Your task to perform on an android device: set the stopwatch Image 0: 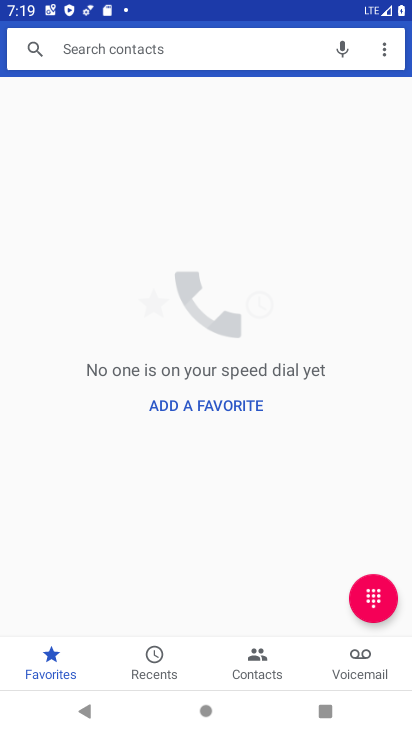
Step 0: press home button
Your task to perform on an android device: set the stopwatch Image 1: 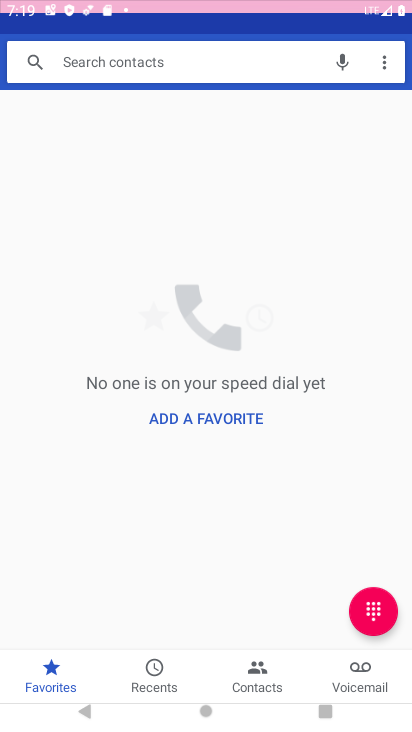
Step 1: press home button
Your task to perform on an android device: set the stopwatch Image 2: 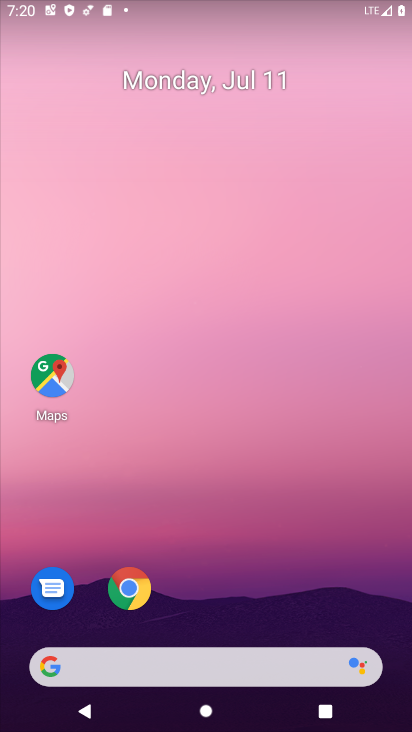
Step 2: drag from (383, 571) to (239, 9)
Your task to perform on an android device: set the stopwatch Image 3: 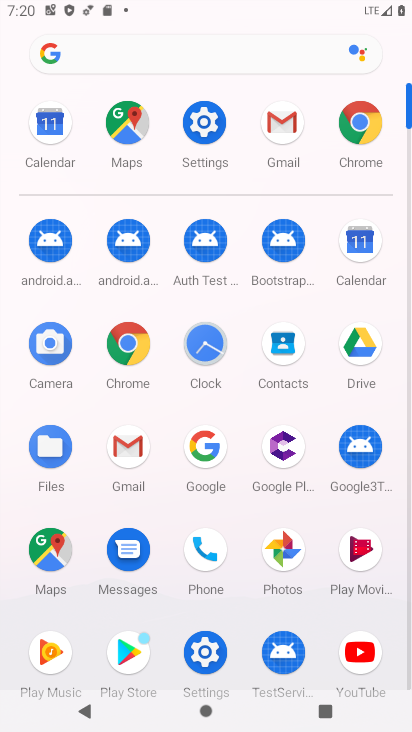
Step 3: click (203, 344)
Your task to perform on an android device: set the stopwatch Image 4: 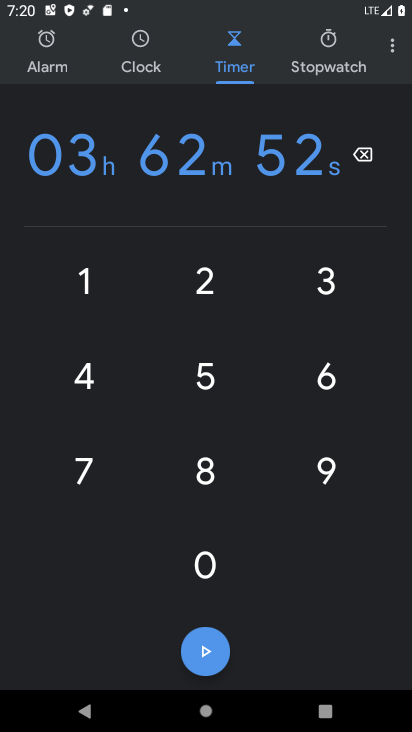
Step 4: click (324, 47)
Your task to perform on an android device: set the stopwatch Image 5: 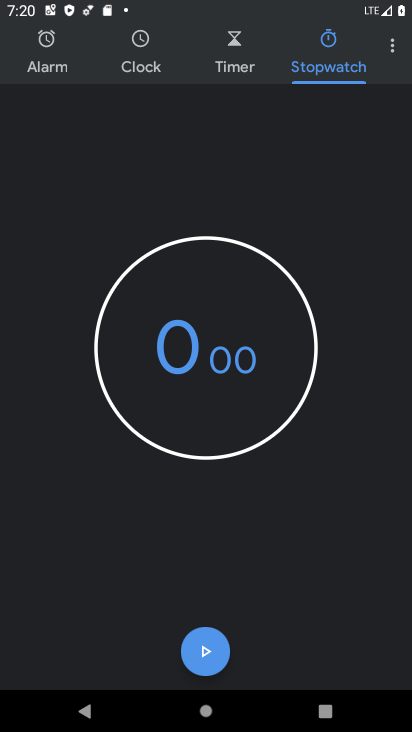
Step 5: task complete